Your task to perform on an android device: What is the recent news? Image 0: 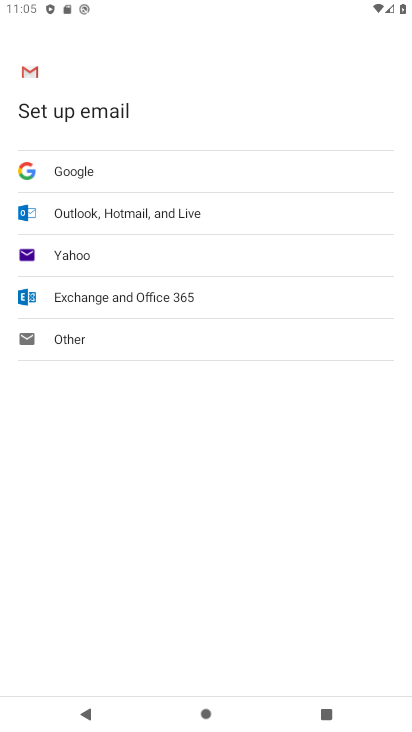
Step 0: press home button
Your task to perform on an android device: What is the recent news? Image 1: 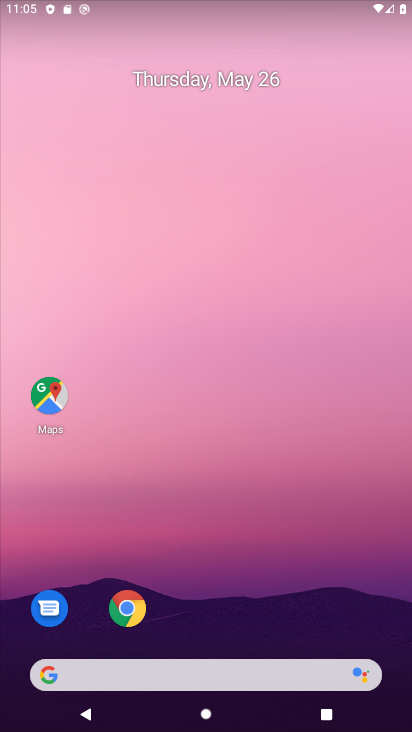
Step 1: drag from (260, 615) to (284, 121)
Your task to perform on an android device: What is the recent news? Image 2: 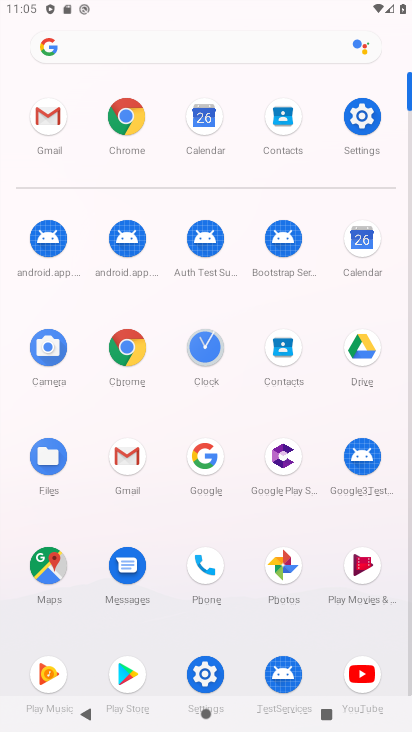
Step 2: click (124, 121)
Your task to perform on an android device: What is the recent news? Image 3: 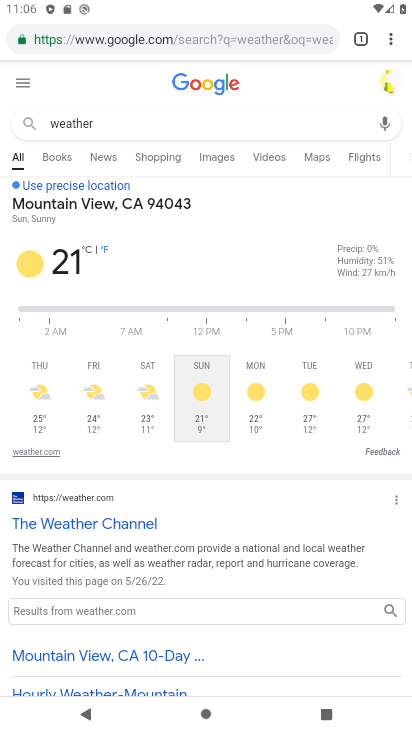
Step 3: click (194, 36)
Your task to perform on an android device: What is the recent news? Image 4: 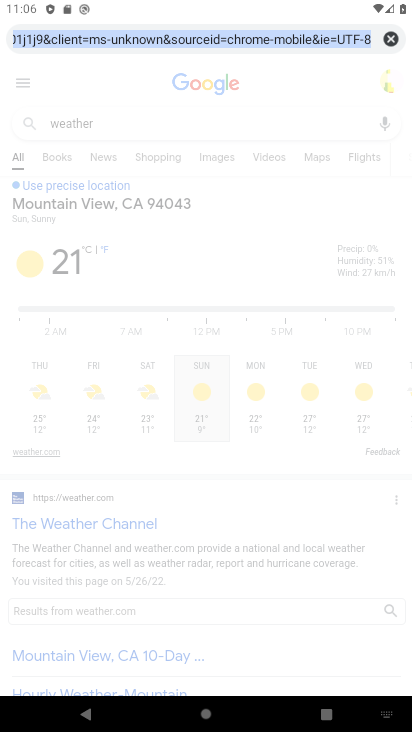
Step 4: type "news"
Your task to perform on an android device: What is the recent news? Image 5: 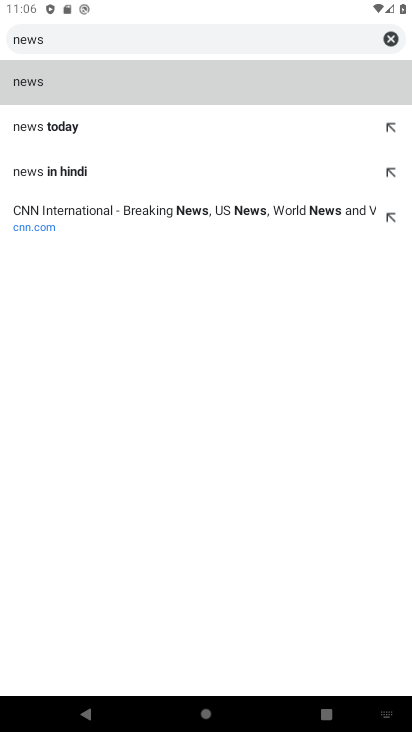
Step 5: click (43, 77)
Your task to perform on an android device: What is the recent news? Image 6: 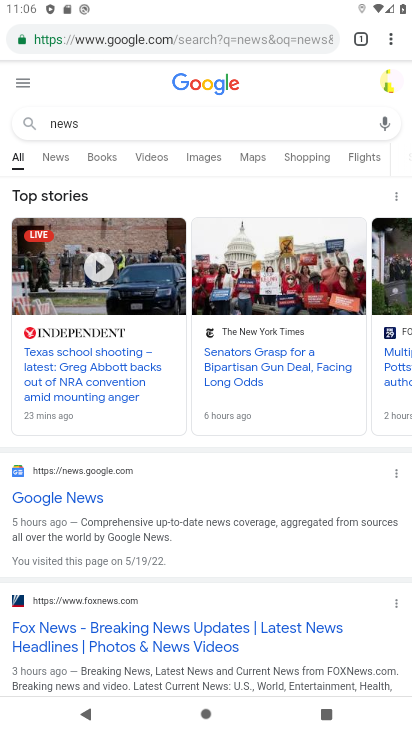
Step 6: click (44, 161)
Your task to perform on an android device: What is the recent news? Image 7: 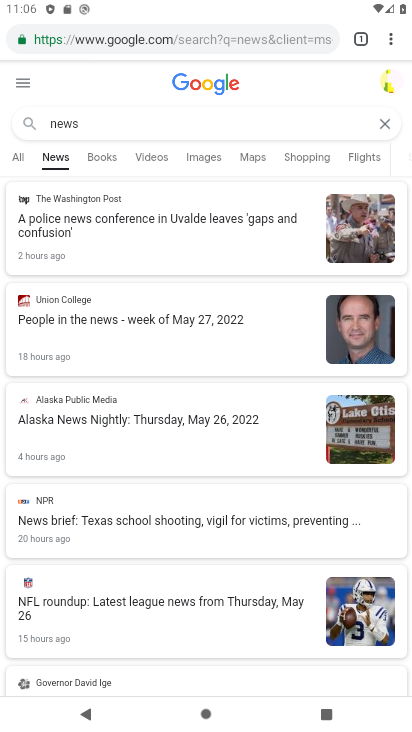
Step 7: task complete